Your task to perform on an android device: refresh tabs in the chrome app Image 0: 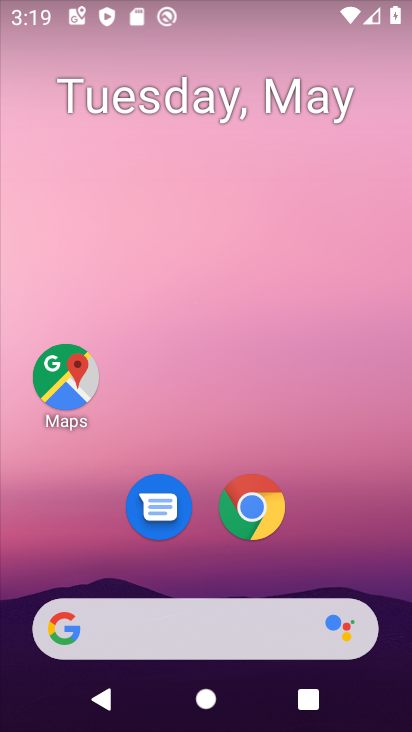
Step 0: click (239, 525)
Your task to perform on an android device: refresh tabs in the chrome app Image 1: 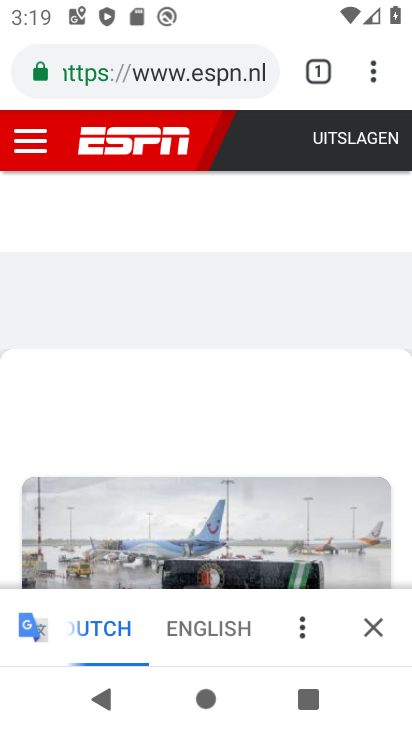
Step 1: click (363, 72)
Your task to perform on an android device: refresh tabs in the chrome app Image 2: 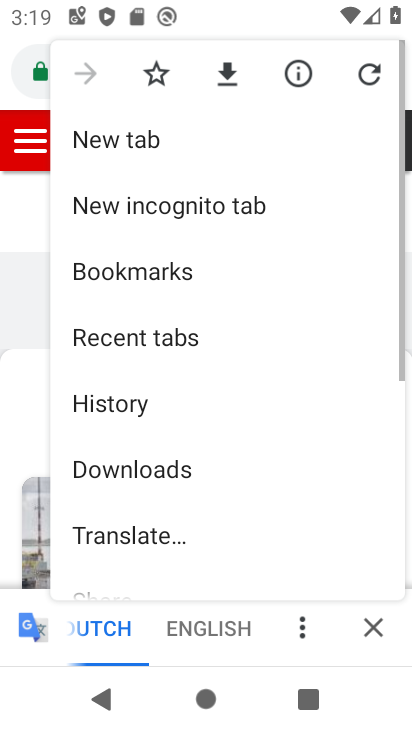
Step 2: click (363, 72)
Your task to perform on an android device: refresh tabs in the chrome app Image 3: 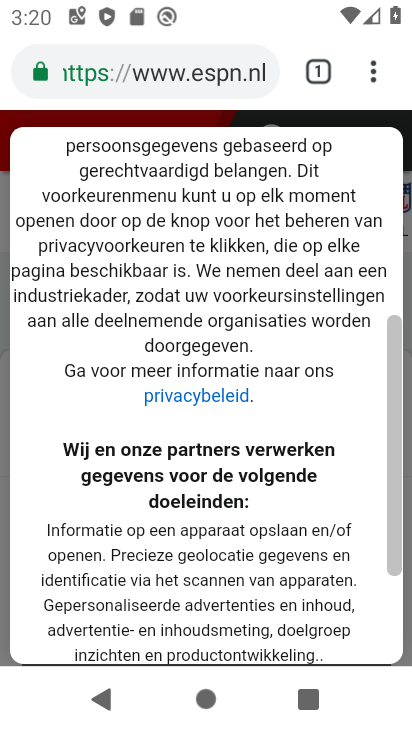
Step 3: task complete